Your task to perform on an android device: Open Youtube and go to the subscriptions tab Image 0: 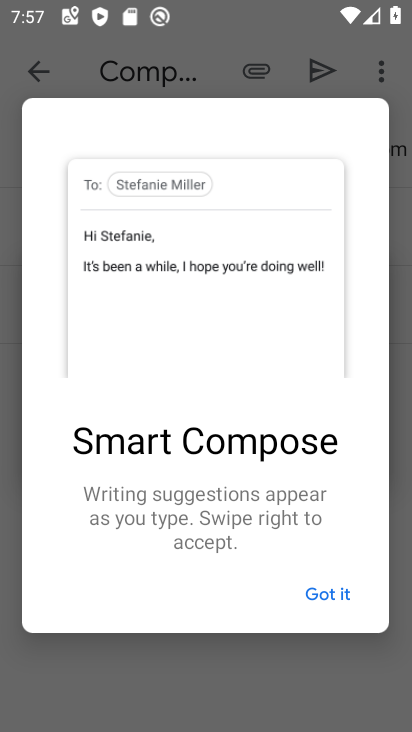
Step 0: press home button
Your task to perform on an android device: Open Youtube and go to the subscriptions tab Image 1: 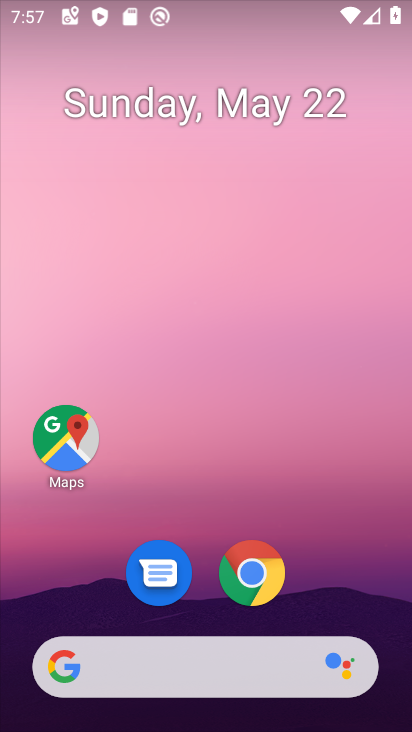
Step 1: drag from (314, 576) to (293, 213)
Your task to perform on an android device: Open Youtube and go to the subscriptions tab Image 2: 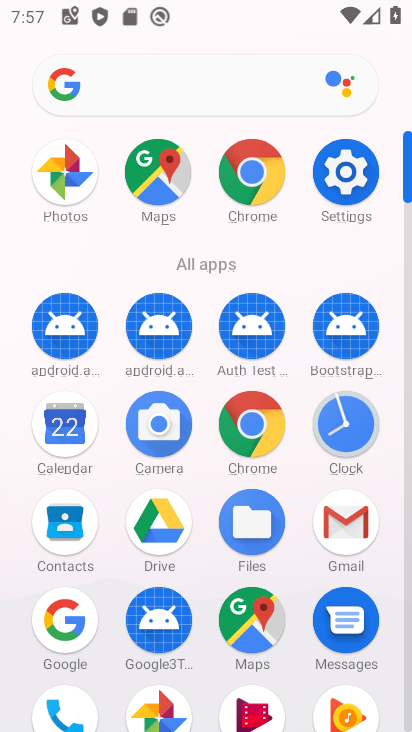
Step 2: drag from (294, 645) to (283, 319)
Your task to perform on an android device: Open Youtube and go to the subscriptions tab Image 3: 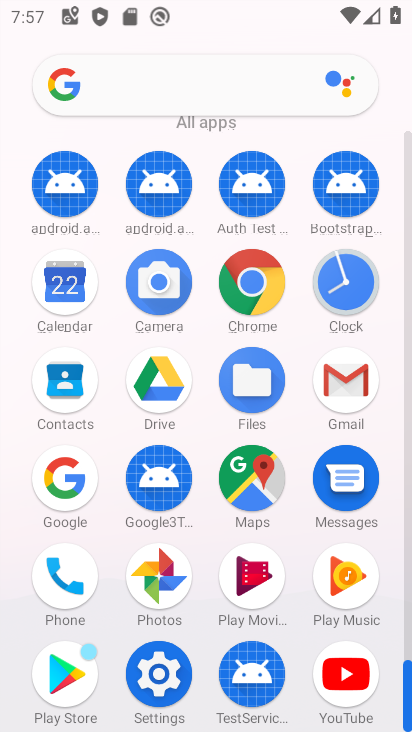
Step 3: click (340, 684)
Your task to perform on an android device: Open Youtube and go to the subscriptions tab Image 4: 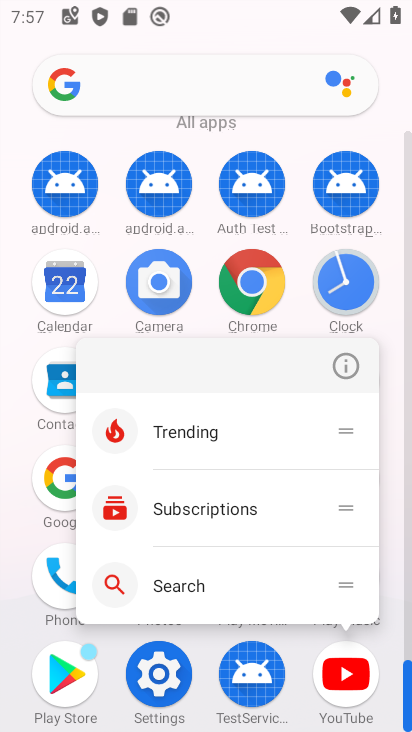
Step 4: click (339, 677)
Your task to perform on an android device: Open Youtube and go to the subscriptions tab Image 5: 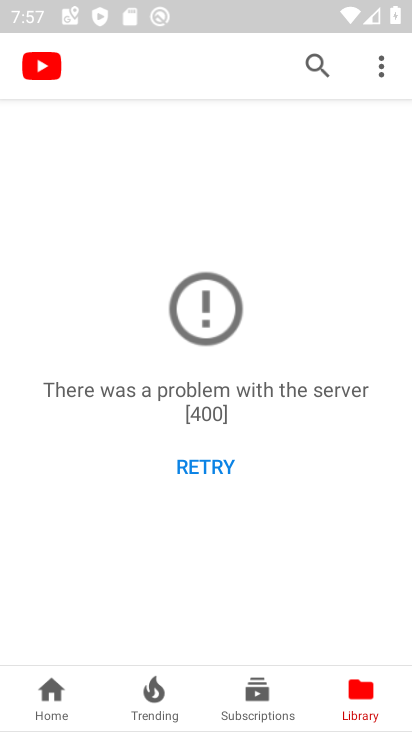
Step 5: click (268, 696)
Your task to perform on an android device: Open Youtube and go to the subscriptions tab Image 6: 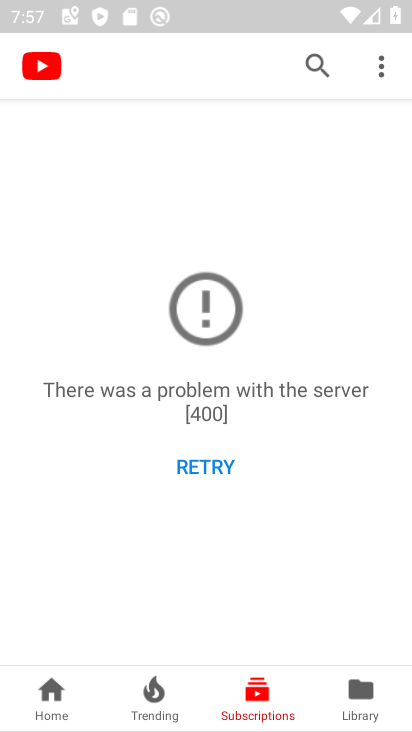
Step 6: task complete